Your task to perform on an android device: Open Yahoo.com Image 0: 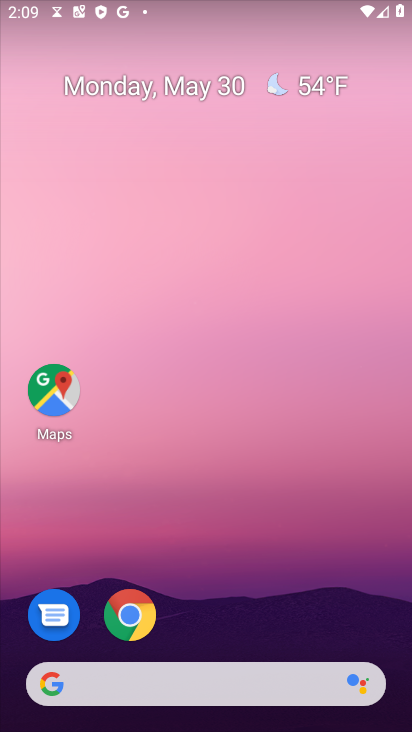
Step 0: drag from (288, 461) to (257, 0)
Your task to perform on an android device: Open Yahoo.com Image 1: 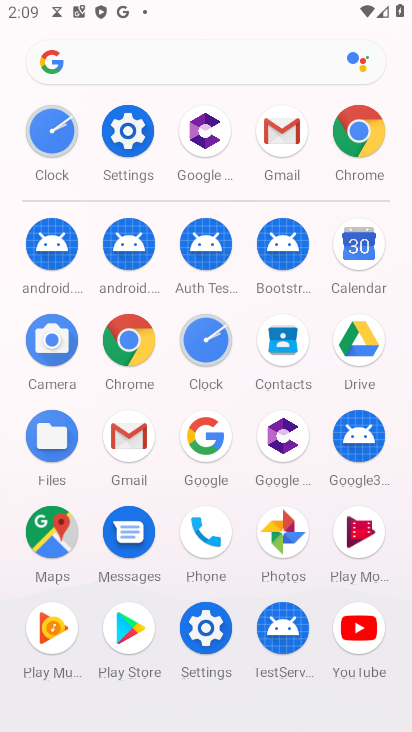
Step 1: click (352, 144)
Your task to perform on an android device: Open Yahoo.com Image 2: 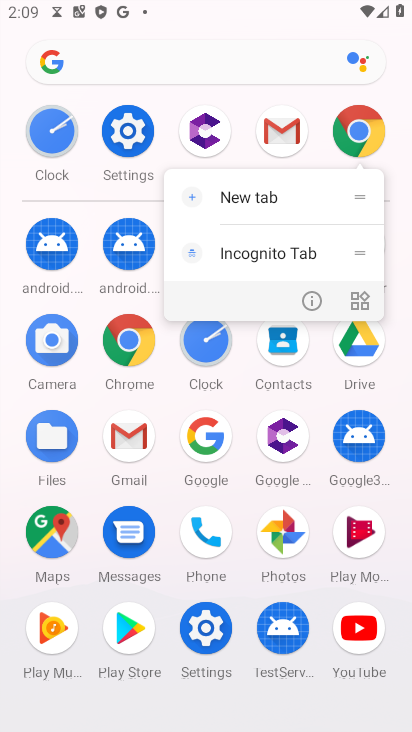
Step 2: click (352, 144)
Your task to perform on an android device: Open Yahoo.com Image 3: 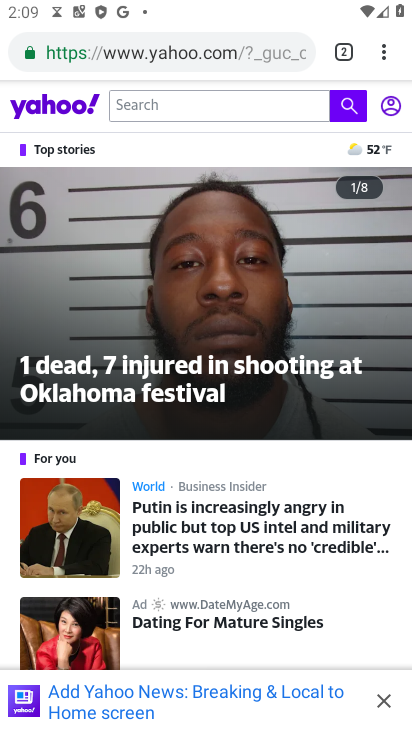
Step 3: task complete